Your task to perform on an android device: Show me the alarms in the clock app Image 0: 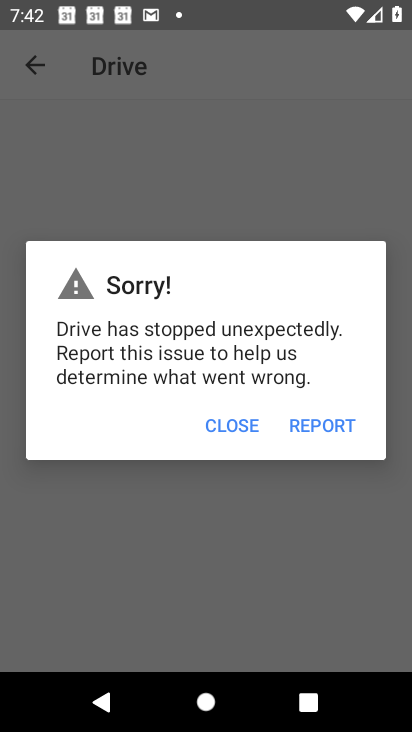
Step 0: press home button
Your task to perform on an android device: Show me the alarms in the clock app Image 1: 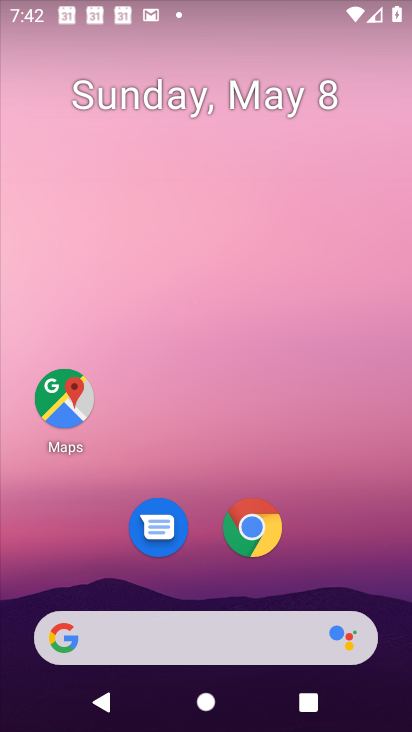
Step 1: drag from (299, 496) to (337, 21)
Your task to perform on an android device: Show me the alarms in the clock app Image 2: 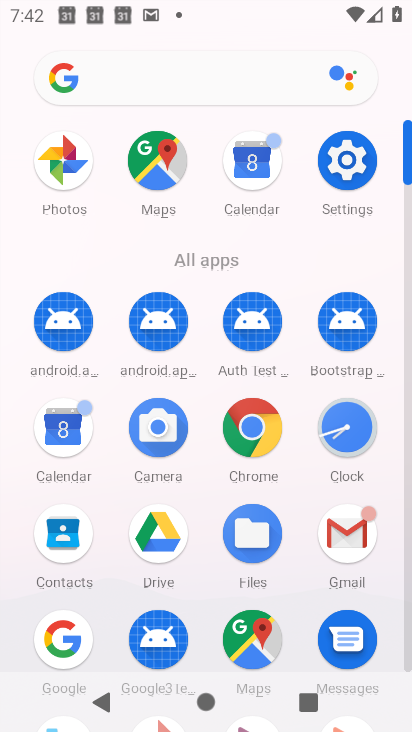
Step 2: click (338, 432)
Your task to perform on an android device: Show me the alarms in the clock app Image 3: 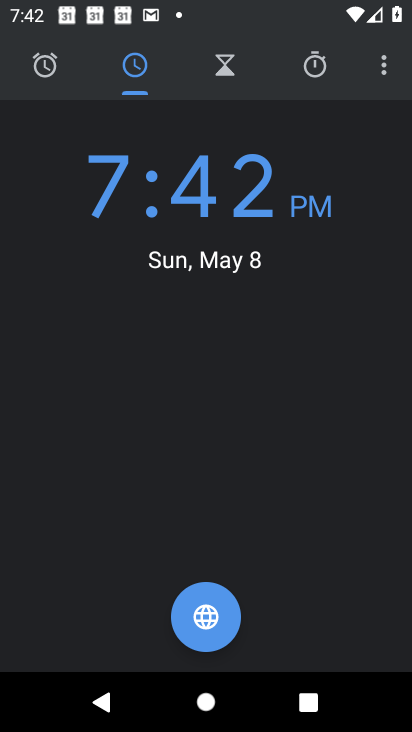
Step 3: click (40, 84)
Your task to perform on an android device: Show me the alarms in the clock app Image 4: 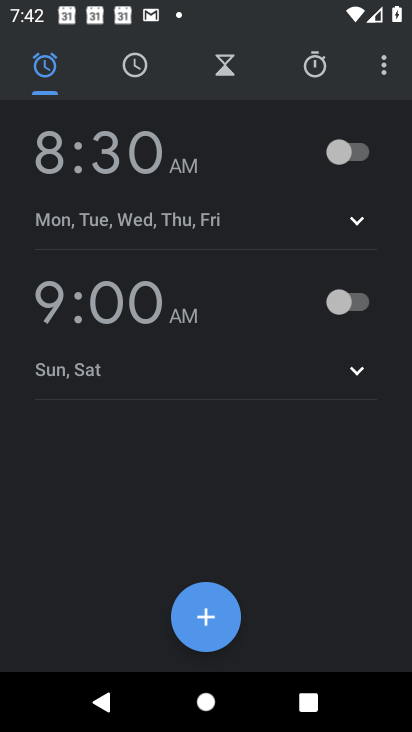
Step 4: task complete